Your task to perform on an android device: Go to Android settings Image 0: 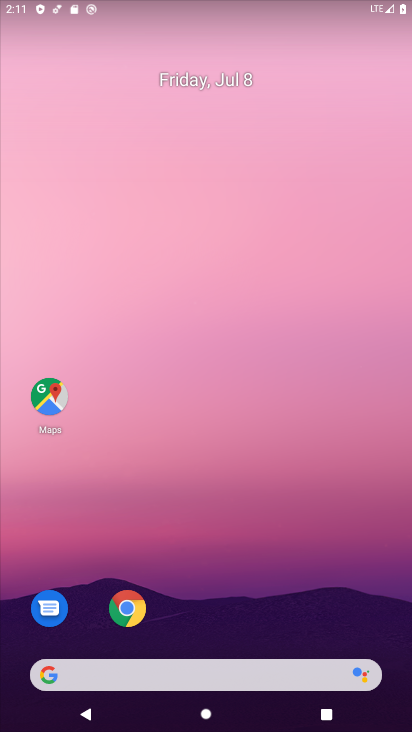
Step 0: drag from (219, 561) to (296, 152)
Your task to perform on an android device: Go to Android settings Image 1: 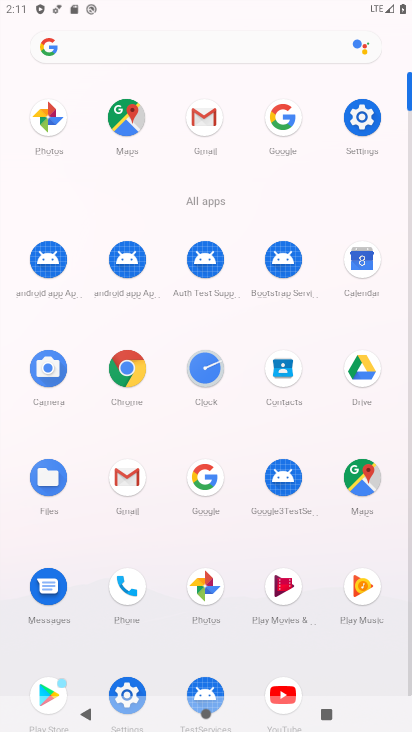
Step 1: click (358, 120)
Your task to perform on an android device: Go to Android settings Image 2: 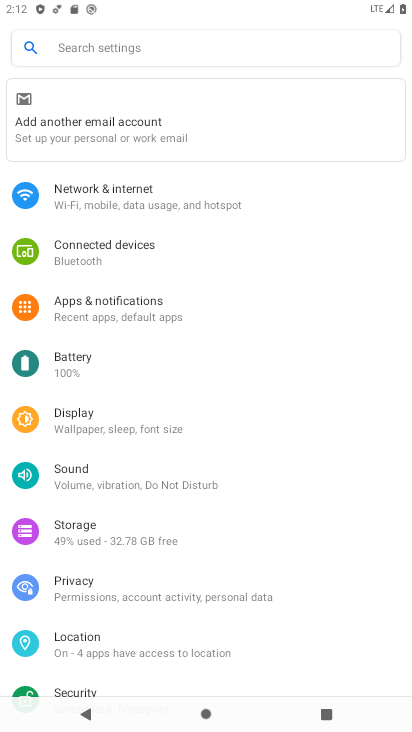
Step 2: task complete